Your task to perform on an android device: Go to display settings Image 0: 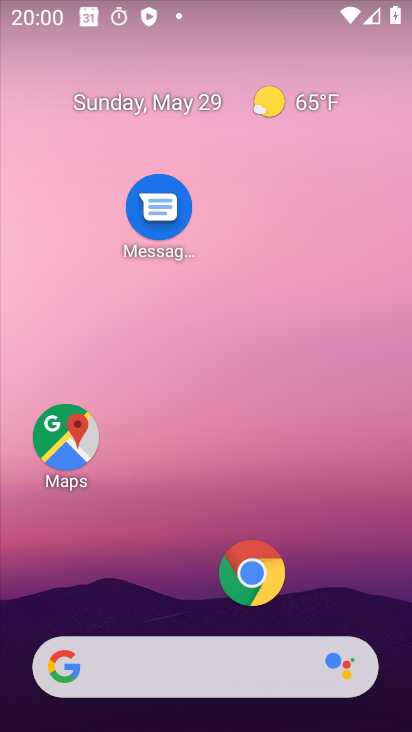
Step 0: drag from (180, 609) to (186, 320)
Your task to perform on an android device: Go to display settings Image 1: 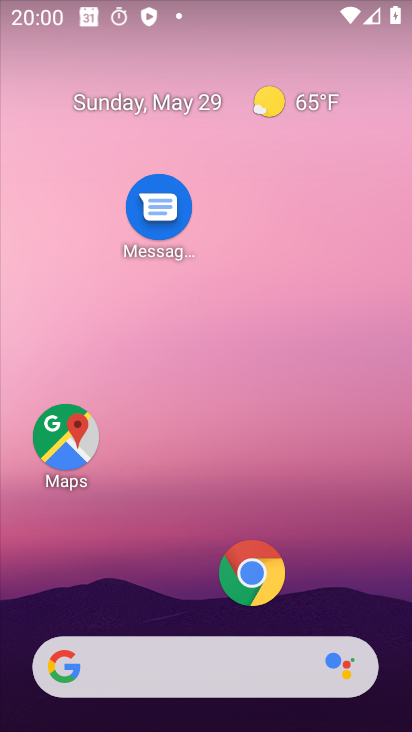
Step 1: drag from (193, 621) to (185, 207)
Your task to perform on an android device: Go to display settings Image 2: 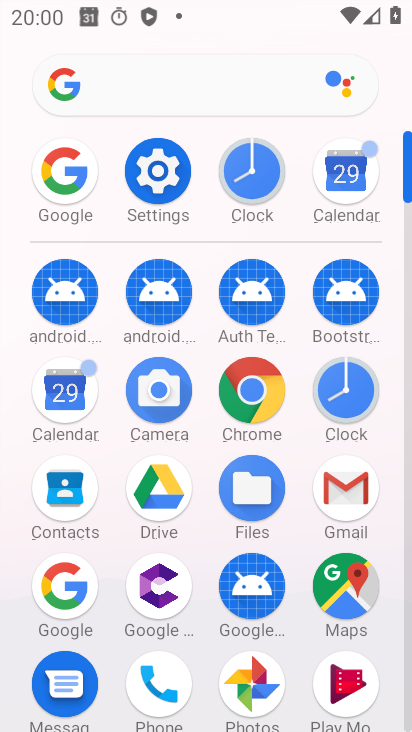
Step 2: click (172, 205)
Your task to perform on an android device: Go to display settings Image 3: 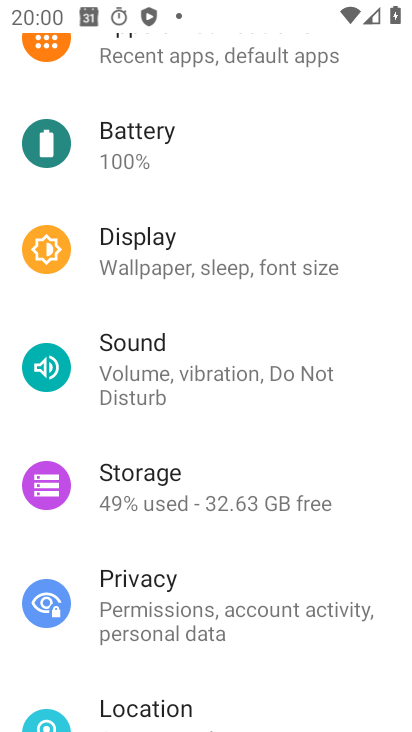
Step 3: click (169, 284)
Your task to perform on an android device: Go to display settings Image 4: 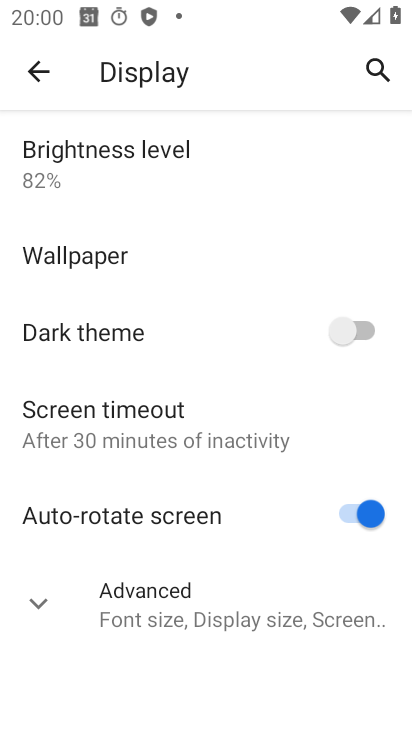
Step 4: task complete